Your task to perform on an android device: Open Android settings Image 0: 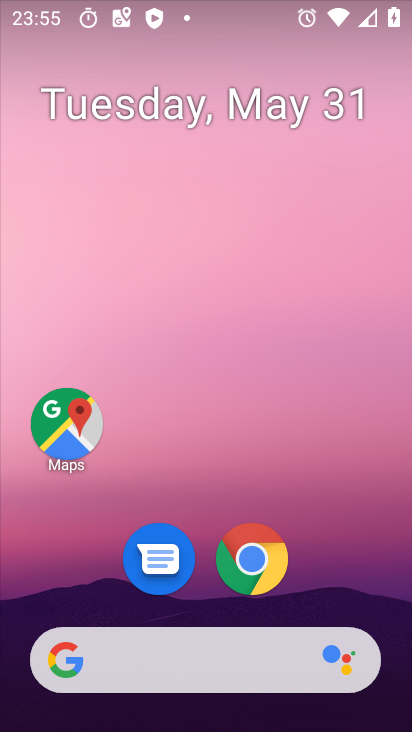
Step 0: drag from (315, 573) to (262, 58)
Your task to perform on an android device: Open Android settings Image 1: 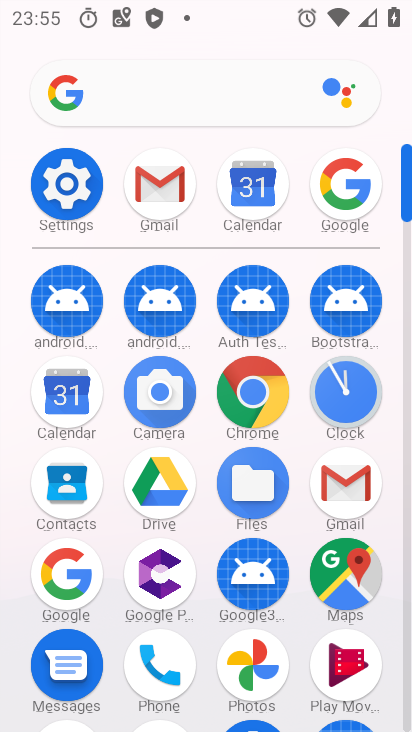
Step 1: click (67, 181)
Your task to perform on an android device: Open Android settings Image 2: 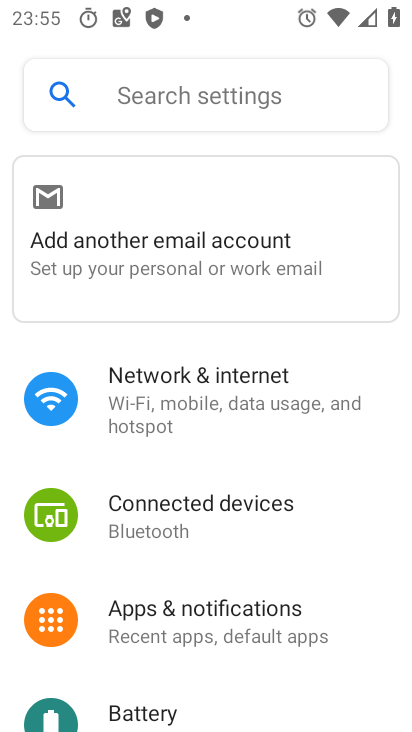
Step 2: task complete